Your task to perform on an android device: Set the phone to "Do not disturb". Image 0: 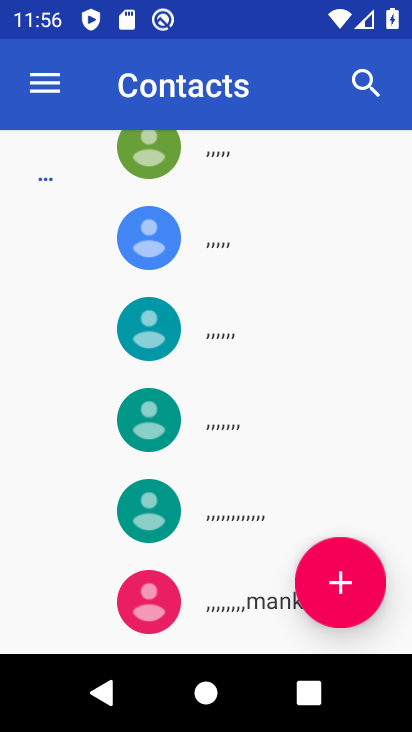
Step 0: press home button
Your task to perform on an android device: Set the phone to "Do not disturb". Image 1: 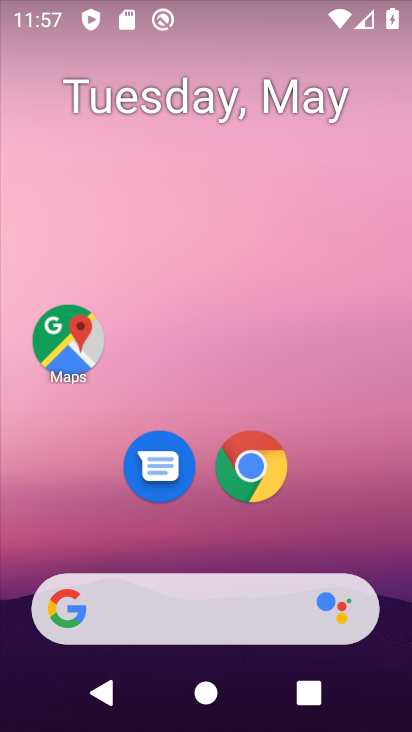
Step 1: drag from (191, 147) to (168, 481)
Your task to perform on an android device: Set the phone to "Do not disturb". Image 2: 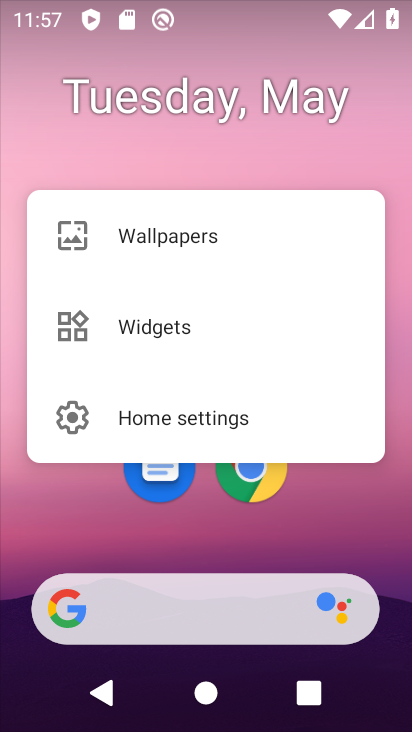
Step 2: click (282, 157)
Your task to perform on an android device: Set the phone to "Do not disturb". Image 3: 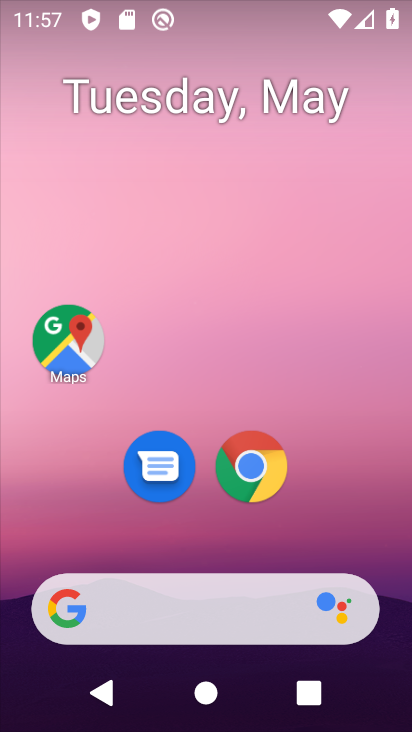
Step 3: drag from (200, 9) to (206, 480)
Your task to perform on an android device: Set the phone to "Do not disturb". Image 4: 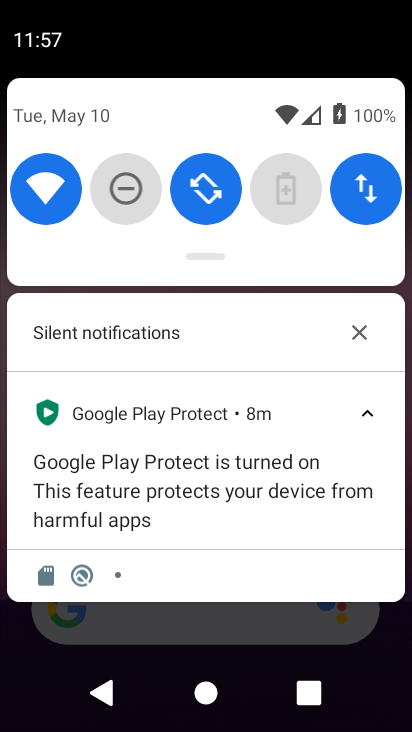
Step 4: click (134, 188)
Your task to perform on an android device: Set the phone to "Do not disturb". Image 5: 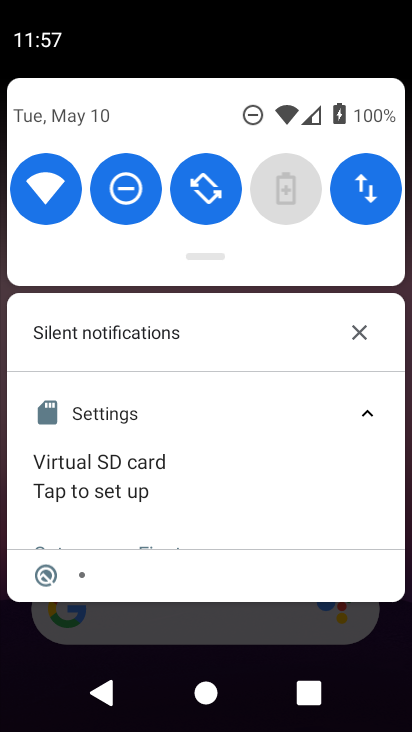
Step 5: task complete